Your task to perform on an android device: Go to privacy settings Image 0: 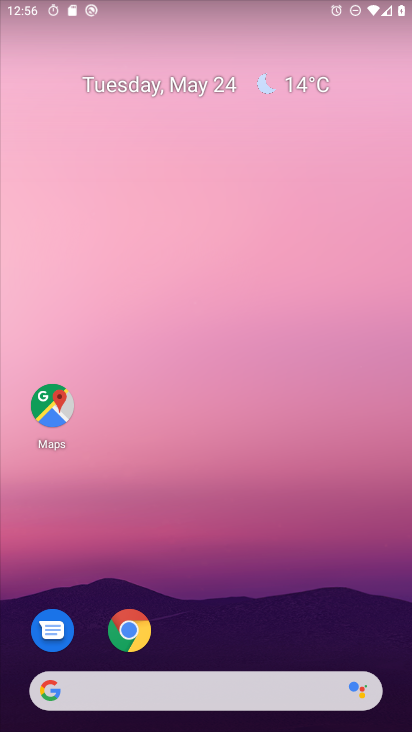
Step 0: drag from (311, 523) to (280, 85)
Your task to perform on an android device: Go to privacy settings Image 1: 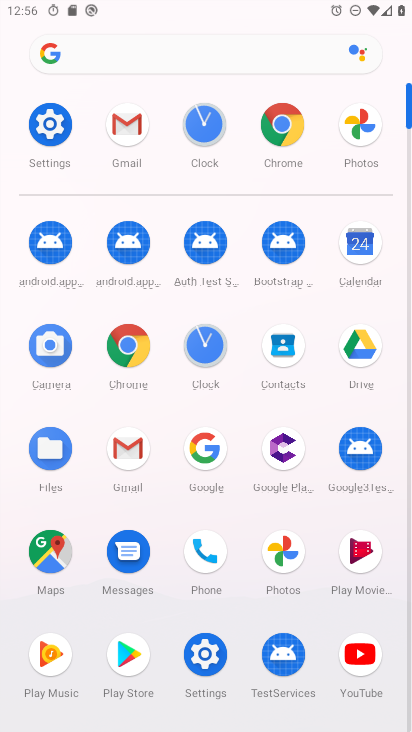
Step 1: click (199, 666)
Your task to perform on an android device: Go to privacy settings Image 2: 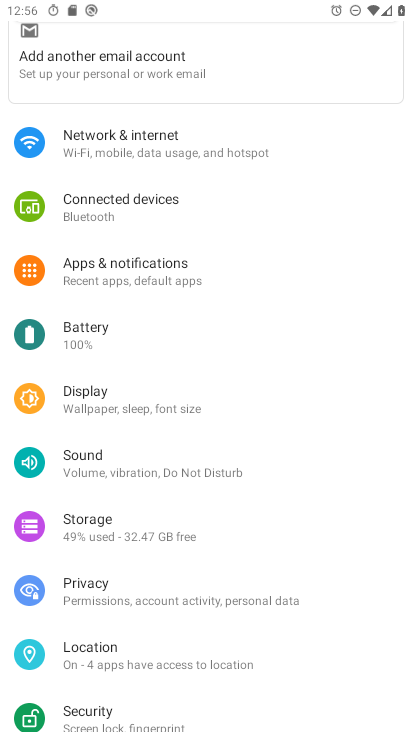
Step 2: click (139, 612)
Your task to perform on an android device: Go to privacy settings Image 3: 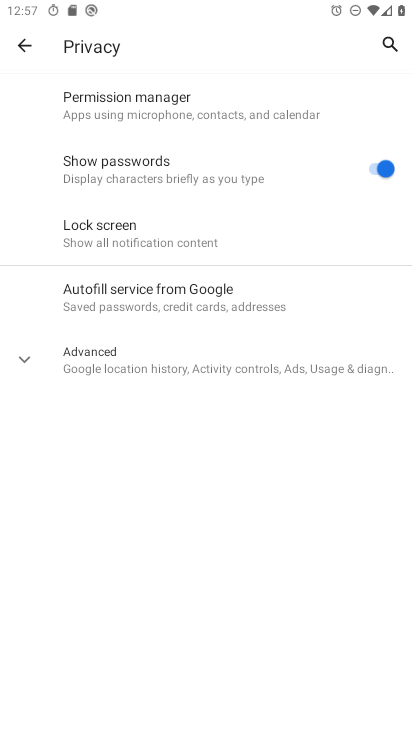
Step 3: task complete